Your task to perform on an android device: Go to Amazon Image 0: 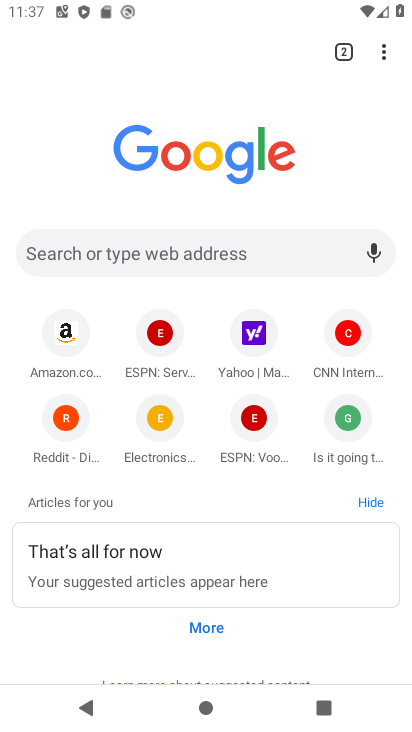
Step 0: click (59, 325)
Your task to perform on an android device: Go to Amazon Image 1: 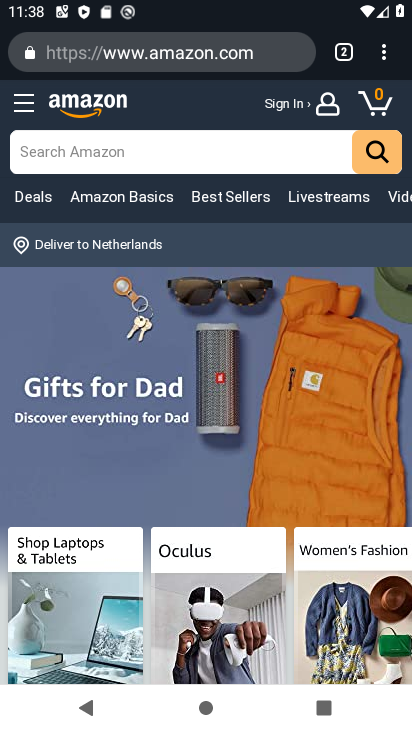
Step 1: task complete